Your task to perform on an android device: read, delete, or share a saved page in the chrome app Image 0: 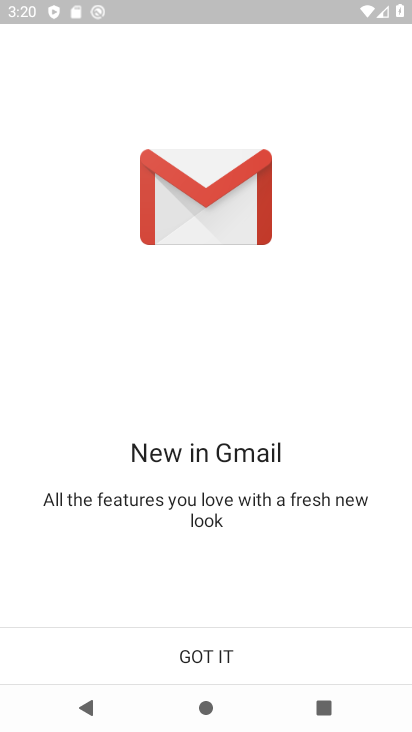
Step 0: press back button
Your task to perform on an android device: read, delete, or share a saved page in the chrome app Image 1: 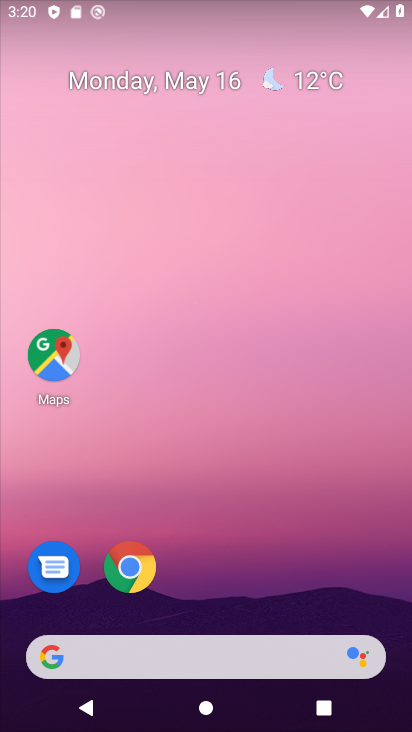
Step 1: drag from (268, 573) to (240, 1)
Your task to perform on an android device: read, delete, or share a saved page in the chrome app Image 2: 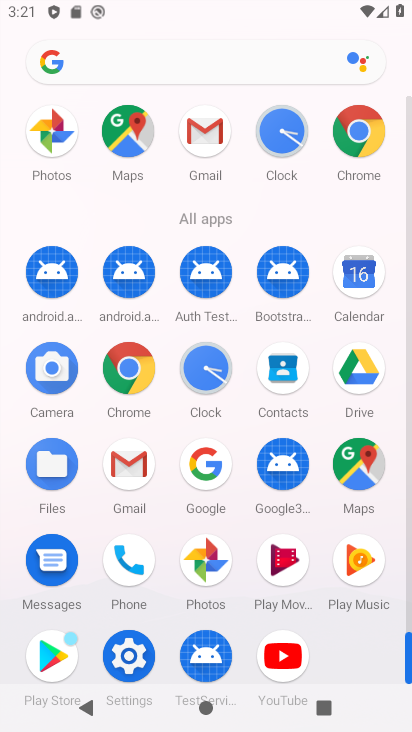
Step 2: click (127, 363)
Your task to perform on an android device: read, delete, or share a saved page in the chrome app Image 3: 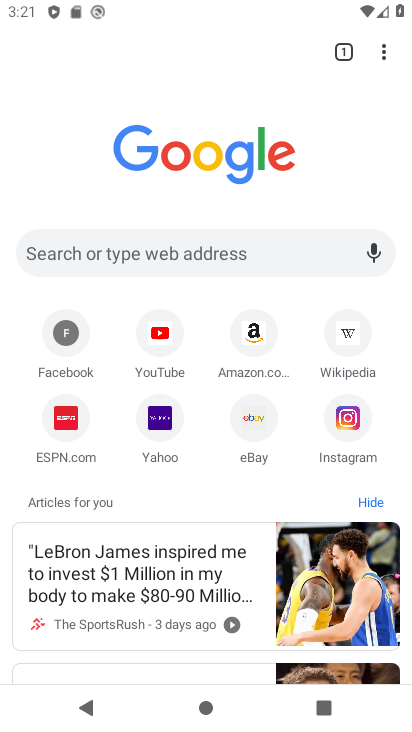
Step 3: click (246, 241)
Your task to perform on an android device: read, delete, or share a saved page in the chrome app Image 4: 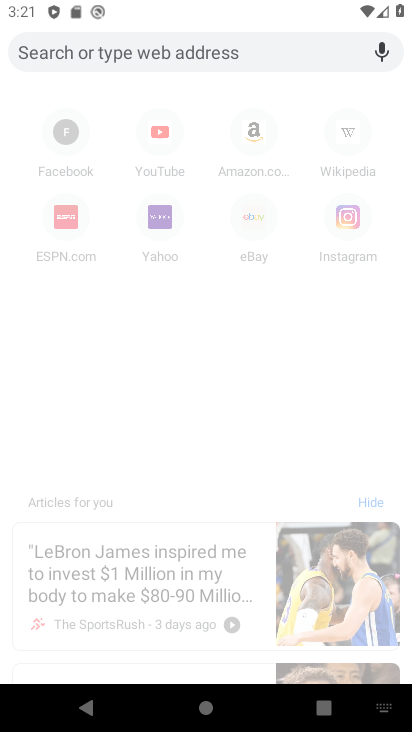
Step 4: task complete